Your task to perform on an android device: Open internet settings Image 0: 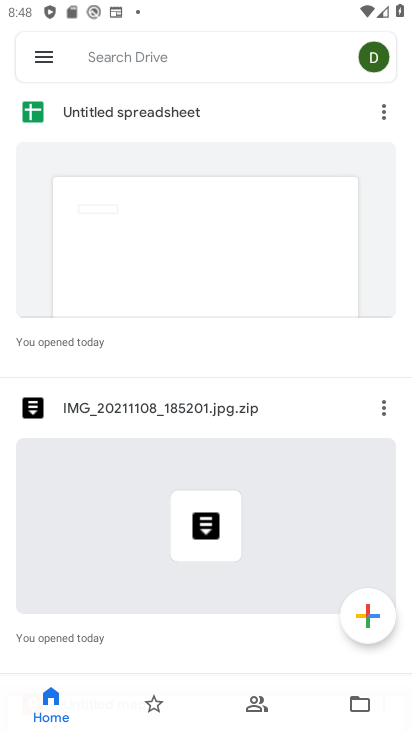
Step 0: press back button
Your task to perform on an android device: Open internet settings Image 1: 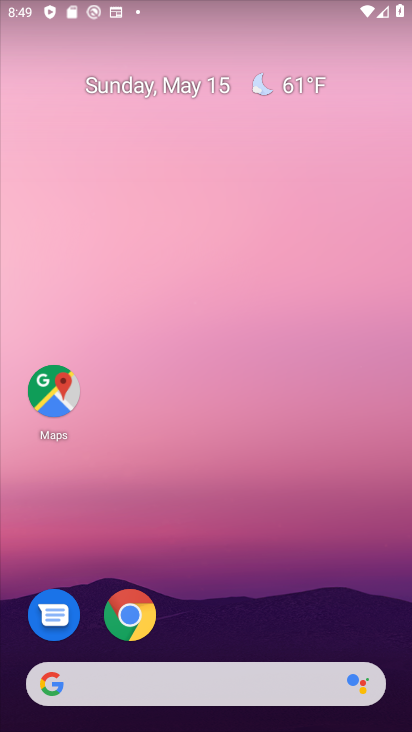
Step 1: drag from (254, 574) to (193, 33)
Your task to perform on an android device: Open internet settings Image 2: 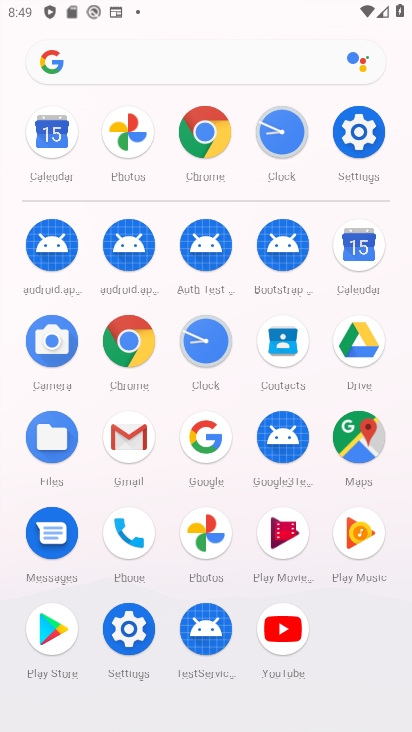
Step 2: drag from (15, 544) to (17, 250)
Your task to perform on an android device: Open internet settings Image 3: 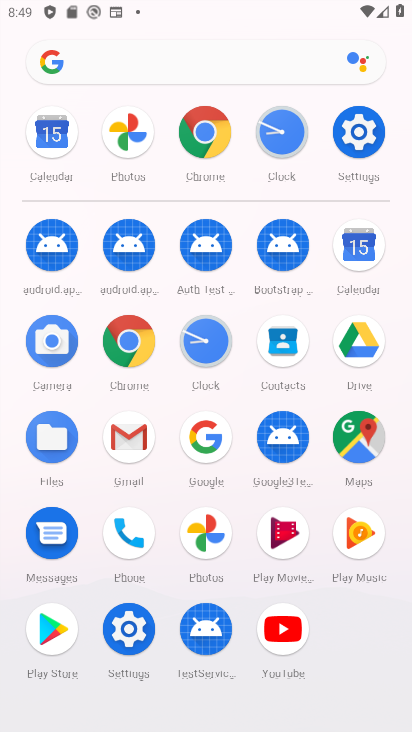
Step 3: click (125, 629)
Your task to perform on an android device: Open internet settings Image 4: 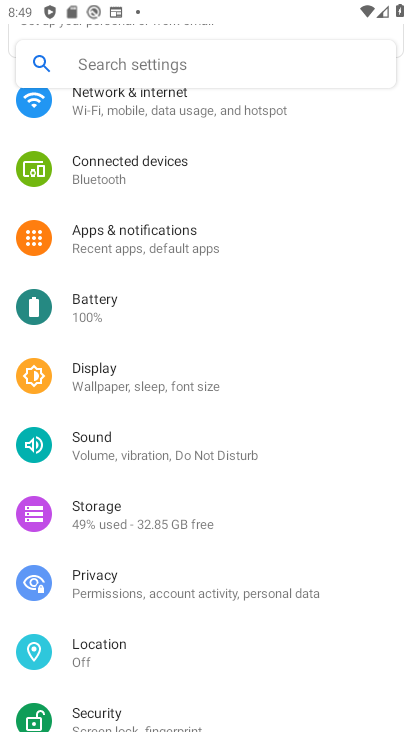
Step 4: drag from (215, 534) to (247, 144)
Your task to perform on an android device: Open internet settings Image 5: 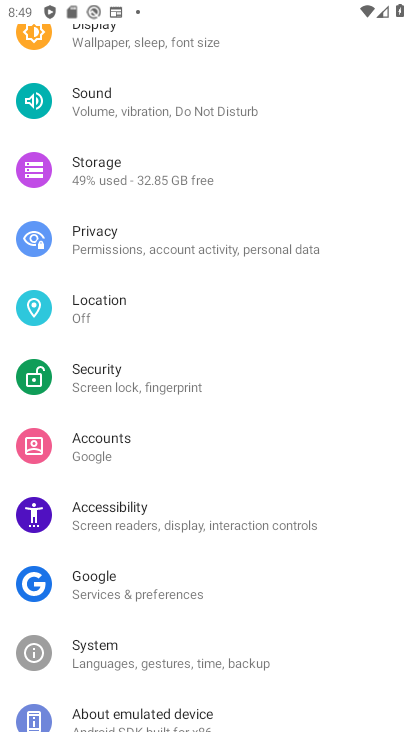
Step 5: drag from (244, 107) to (261, 609)
Your task to perform on an android device: Open internet settings Image 6: 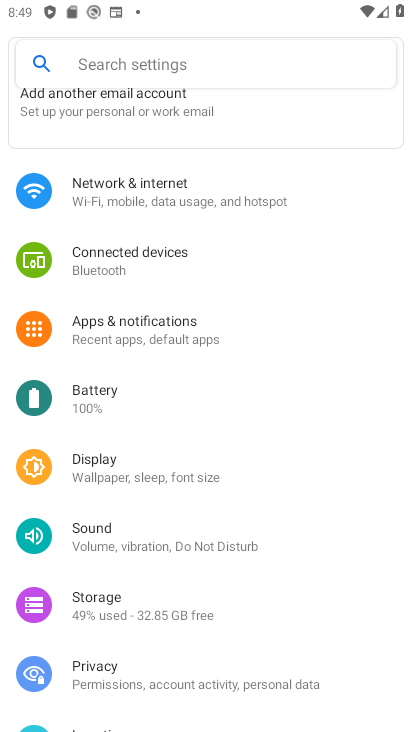
Step 6: click (188, 187)
Your task to perform on an android device: Open internet settings Image 7: 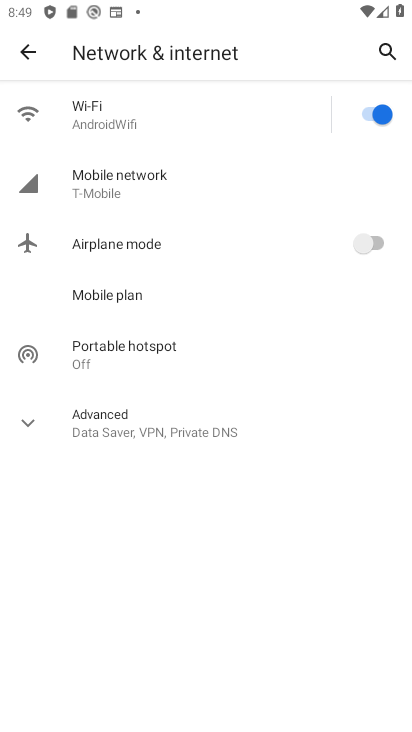
Step 7: click (37, 427)
Your task to perform on an android device: Open internet settings Image 8: 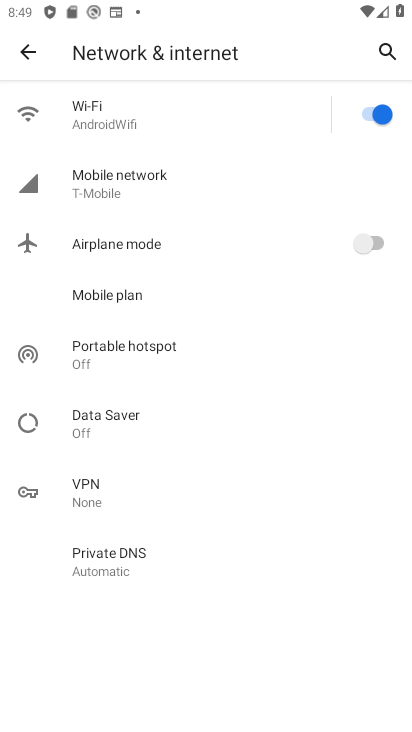
Step 8: task complete